Your task to perform on an android device: toggle sleep mode Image 0: 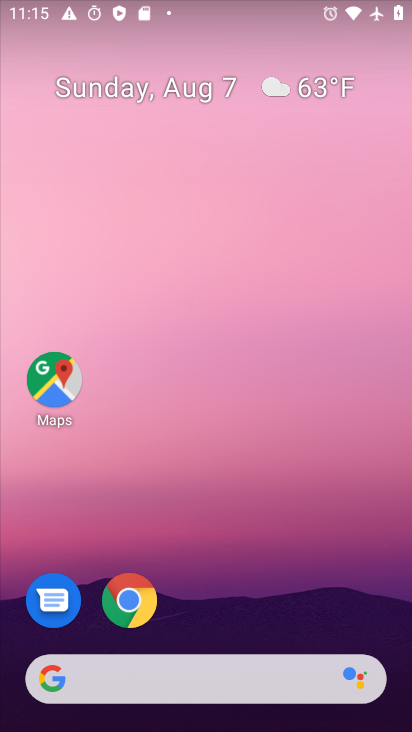
Step 0: drag from (203, 644) to (208, 76)
Your task to perform on an android device: toggle sleep mode Image 1: 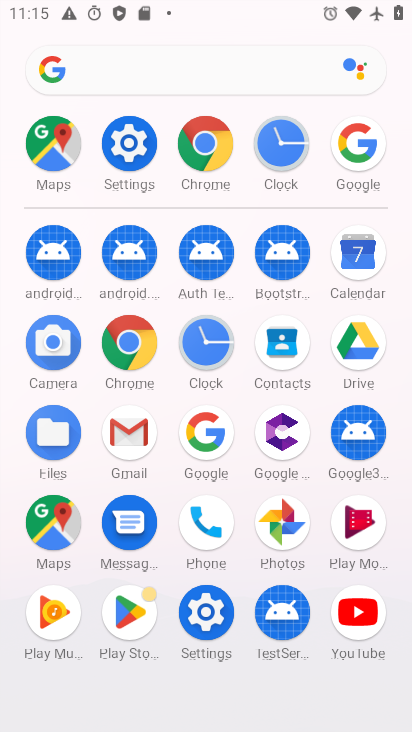
Step 1: click (112, 171)
Your task to perform on an android device: toggle sleep mode Image 2: 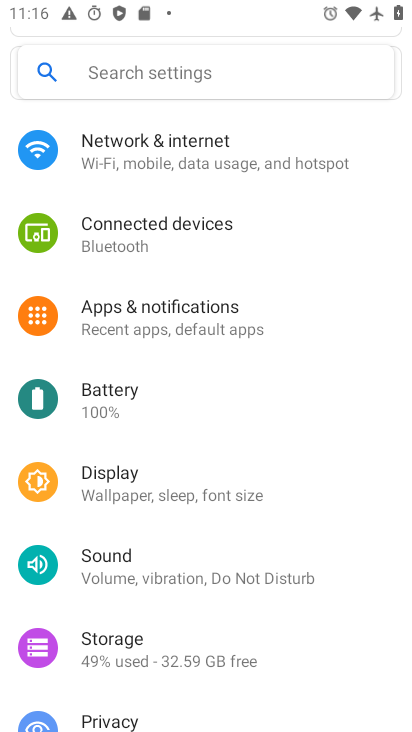
Step 2: click (137, 490)
Your task to perform on an android device: toggle sleep mode Image 3: 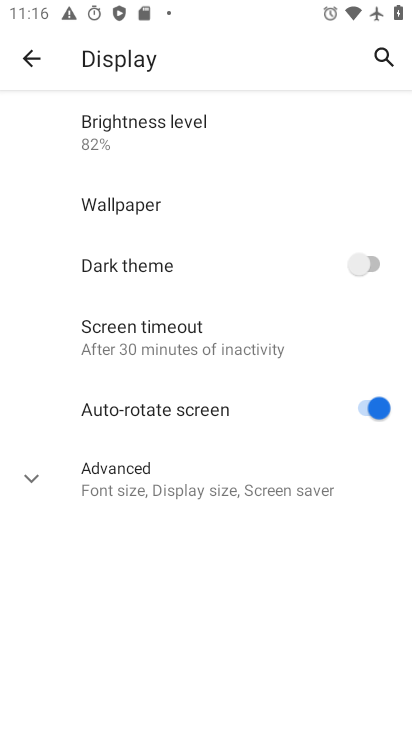
Step 3: click (148, 489)
Your task to perform on an android device: toggle sleep mode Image 4: 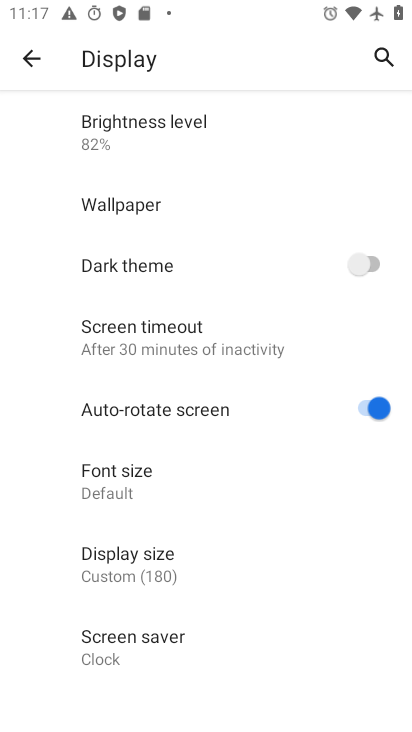
Step 4: task complete